Your task to perform on an android device: Show me popular games on the Play Store Image 0: 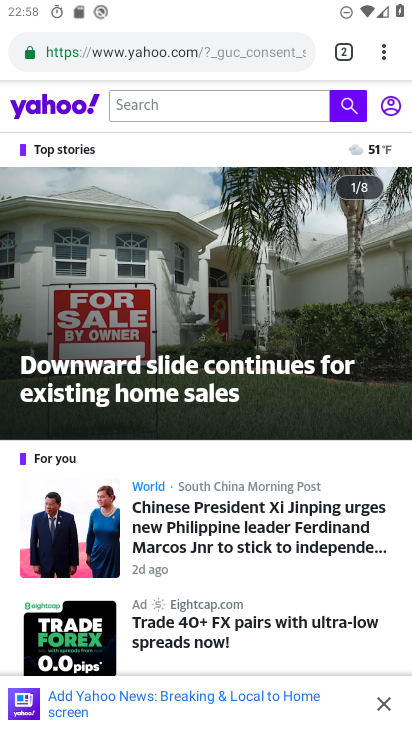
Step 0: press home button
Your task to perform on an android device: Show me popular games on the Play Store Image 1: 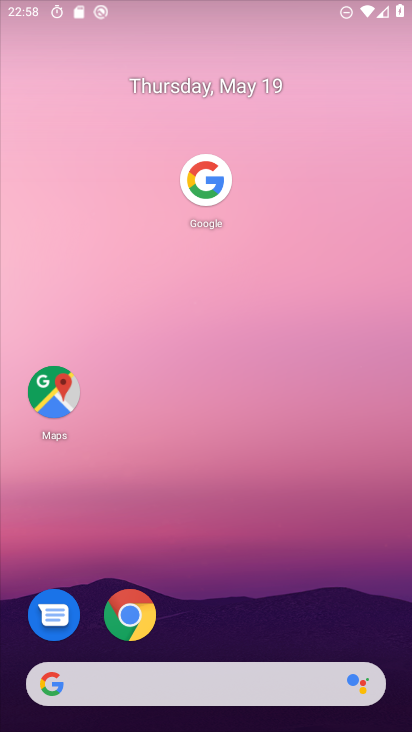
Step 1: drag from (250, 585) to (277, 13)
Your task to perform on an android device: Show me popular games on the Play Store Image 2: 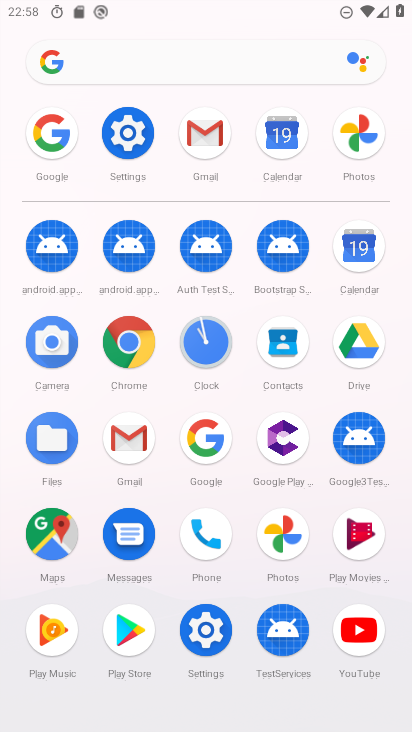
Step 2: click (131, 630)
Your task to perform on an android device: Show me popular games on the Play Store Image 3: 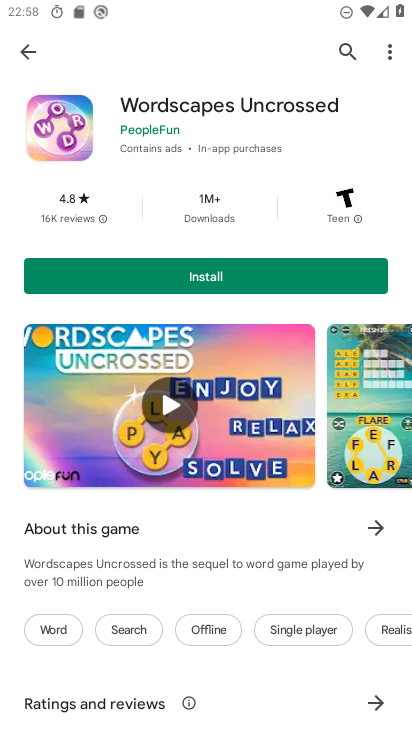
Step 3: press back button
Your task to perform on an android device: Show me popular games on the Play Store Image 4: 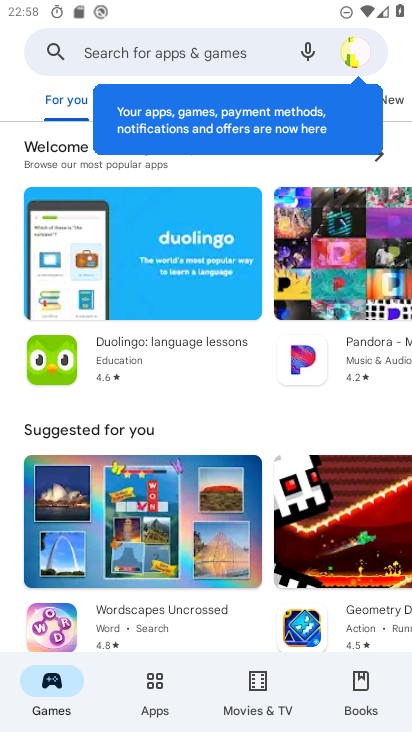
Step 4: drag from (283, 507) to (275, 49)
Your task to perform on an android device: Show me popular games on the Play Store Image 5: 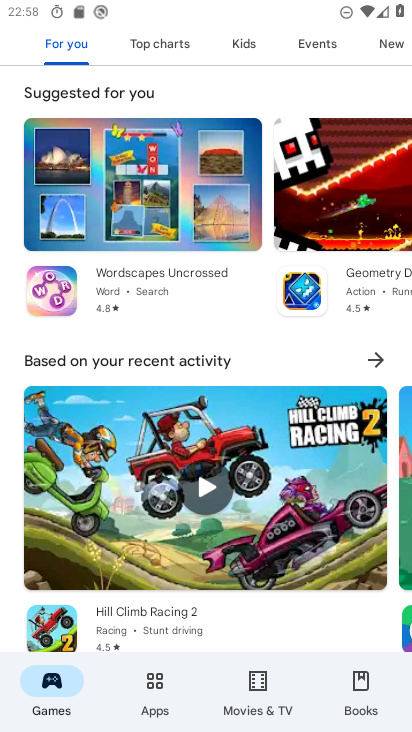
Step 5: drag from (221, 518) to (240, 180)
Your task to perform on an android device: Show me popular games on the Play Store Image 6: 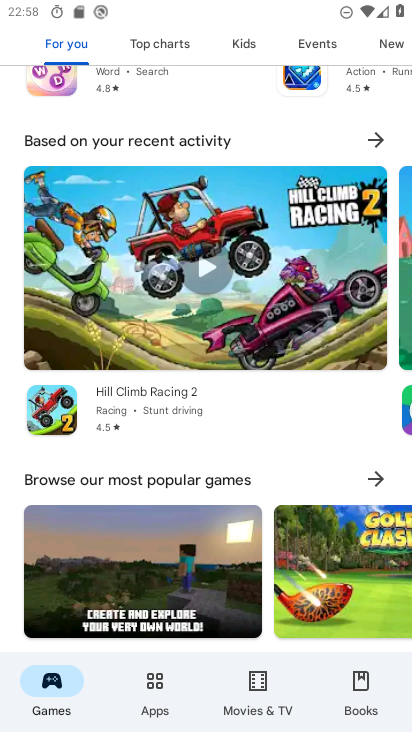
Step 6: click (361, 474)
Your task to perform on an android device: Show me popular games on the Play Store Image 7: 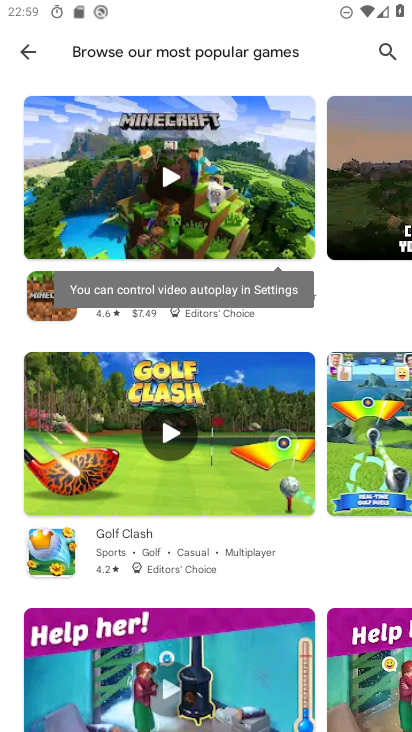
Step 7: task complete